Your task to perform on an android device: Open display settings Image 0: 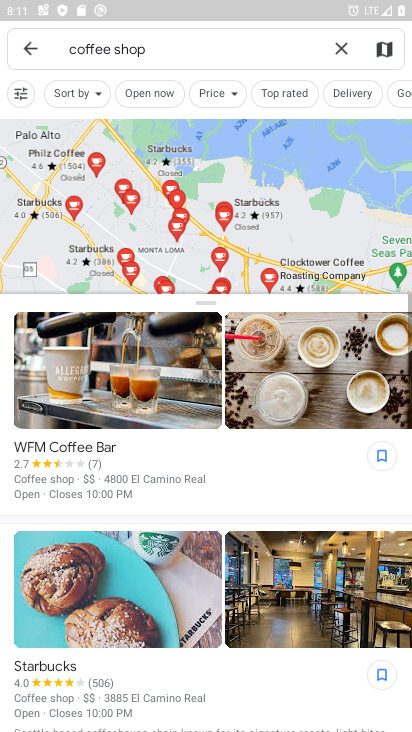
Step 0: press home button
Your task to perform on an android device: Open display settings Image 1: 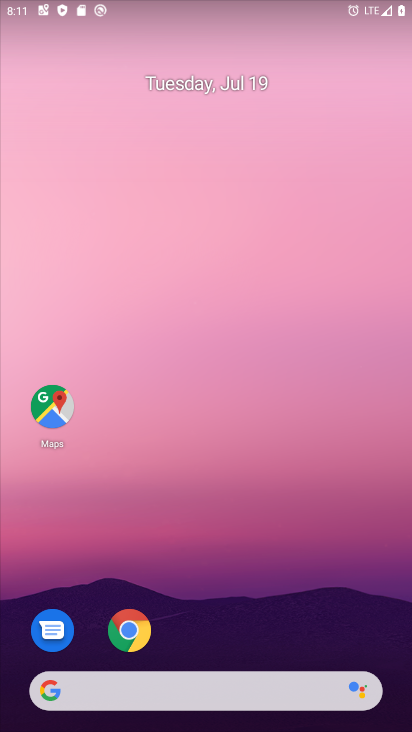
Step 1: drag from (277, 556) to (243, 127)
Your task to perform on an android device: Open display settings Image 2: 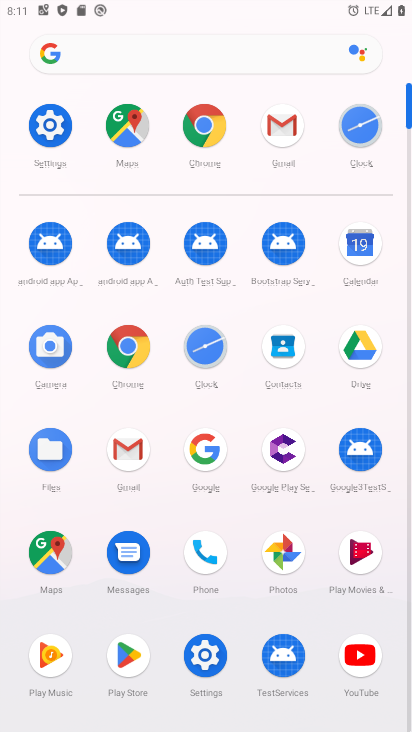
Step 2: click (54, 127)
Your task to perform on an android device: Open display settings Image 3: 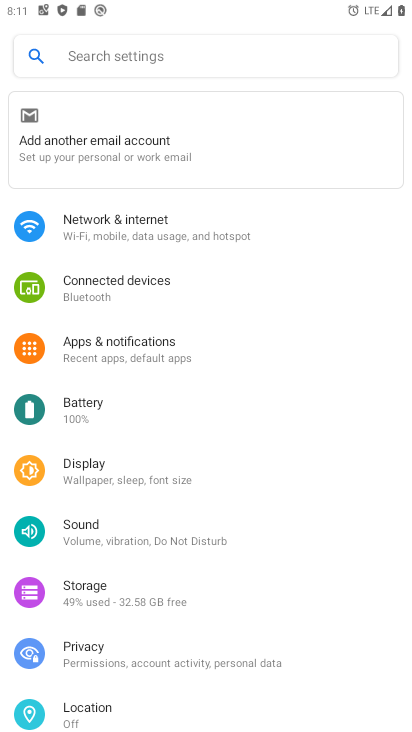
Step 3: click (130, 473)
Your task to perform on an android device: Open display settings Image 4: 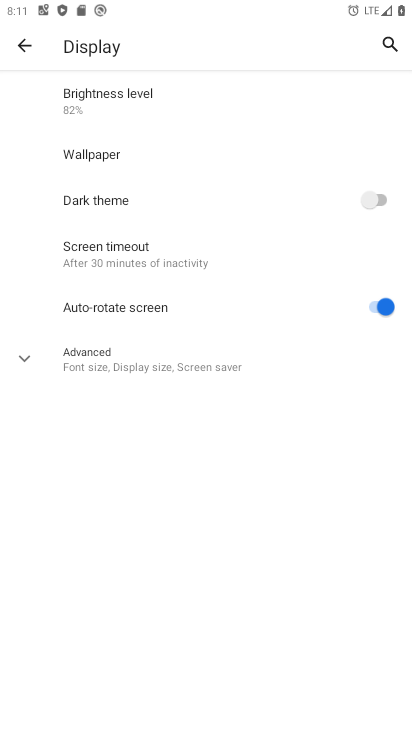
Step 4: task complete